Your task to perform on an android device: turn on wifi Image 0: 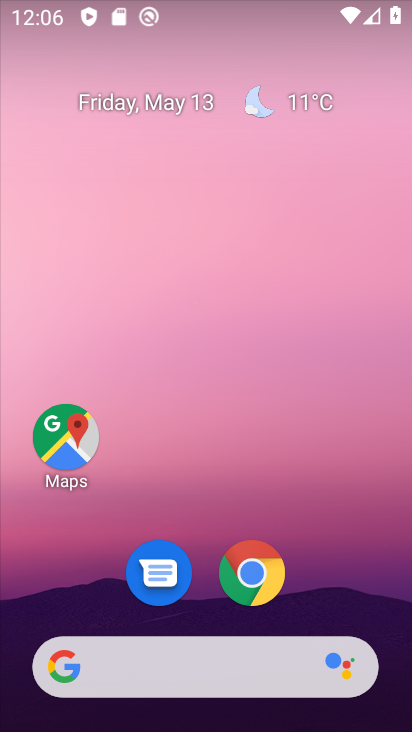
Step 0: drag from (238, 689) to (387, 244)
Your task to perform on an android device: turn on wifi Image 1: 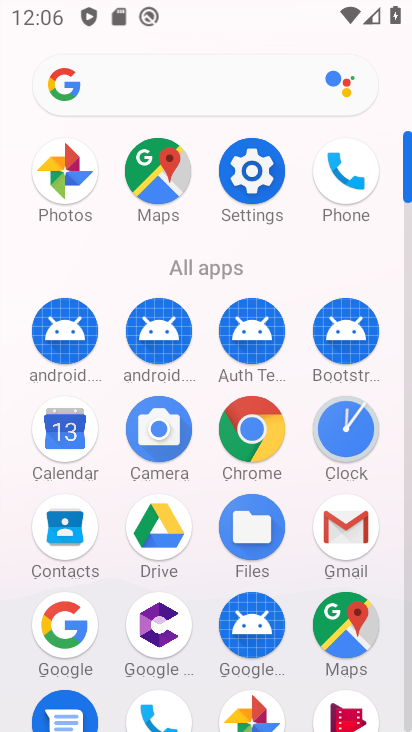
Step 1: click (248, 193)
Your task to perform on an android device: turn on wifi Image 2: 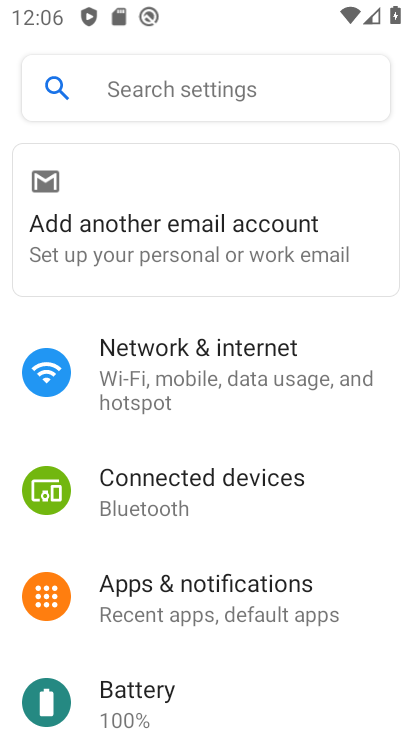
Step 2: click (177, 366)
Your task to perform on an android device: turn on wifi Image 3: 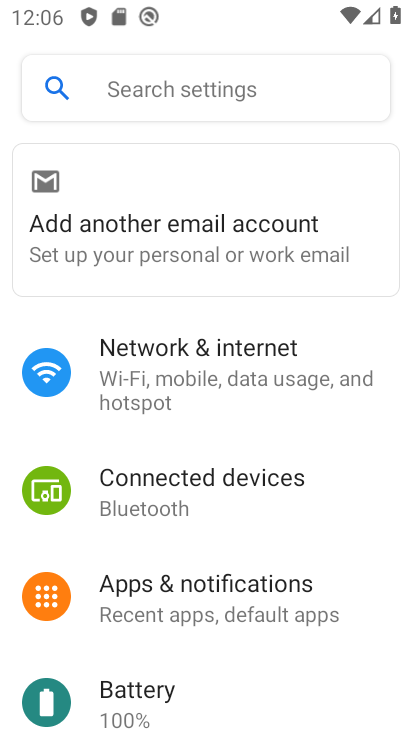
Step 3: click (154, 362)
Your task to perform on an android device: turn on wifi Image 4: 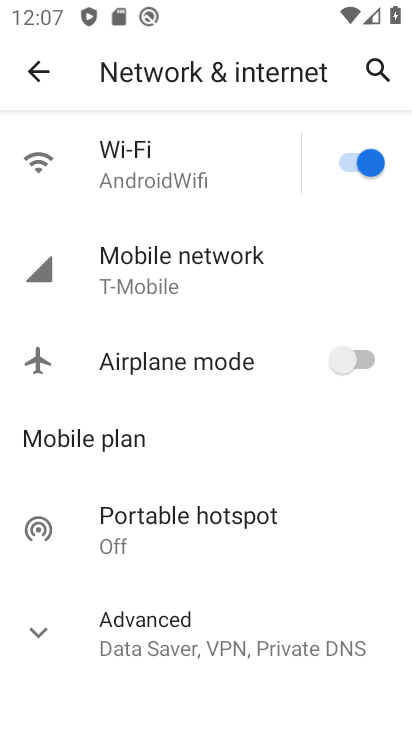
Step 4: click (189, 177)
Your task to perform on an android device: turn on wifi Image 5: 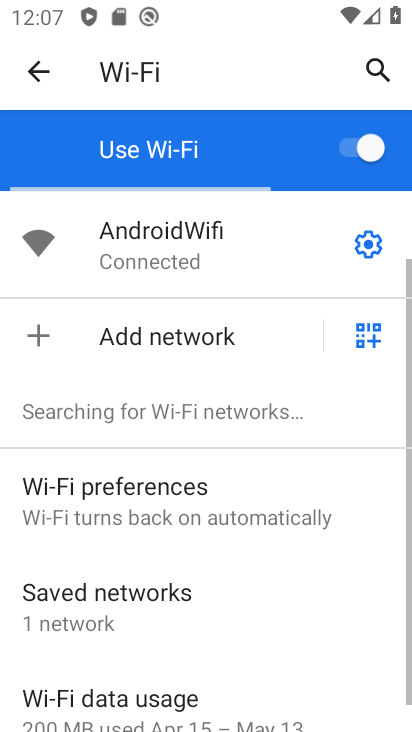
Step 5: click (335, 155)
Your task to perform on an android device: turn on wifi Image 6: 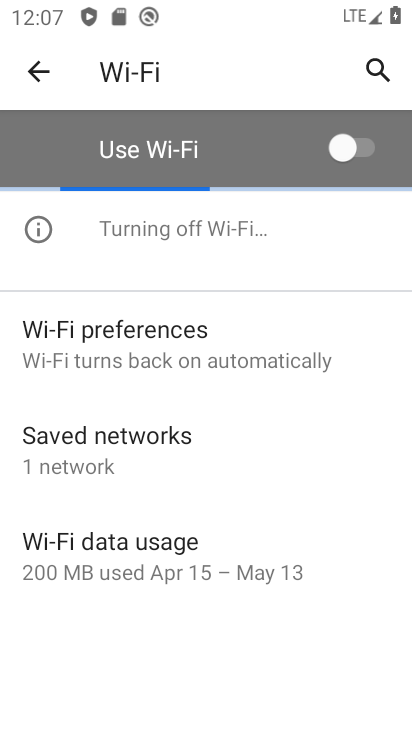
Step 6: click (330, 157)
Your task to perform on an android device: turn on wifi Image 7: 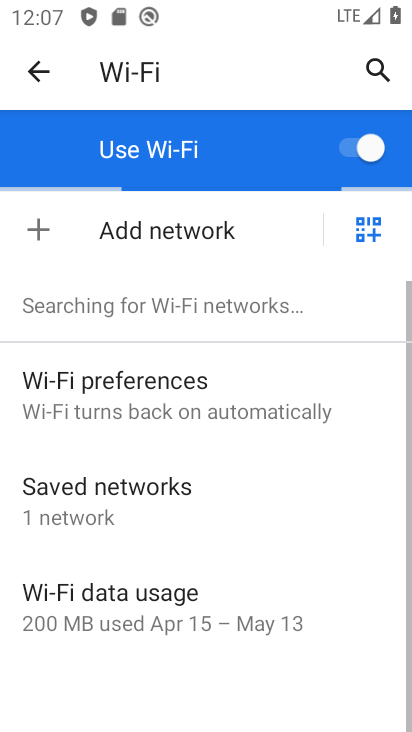
Step 7: task complete